Your task to perform on an android device: open app "Roku - Official Remote Control" Image 0: 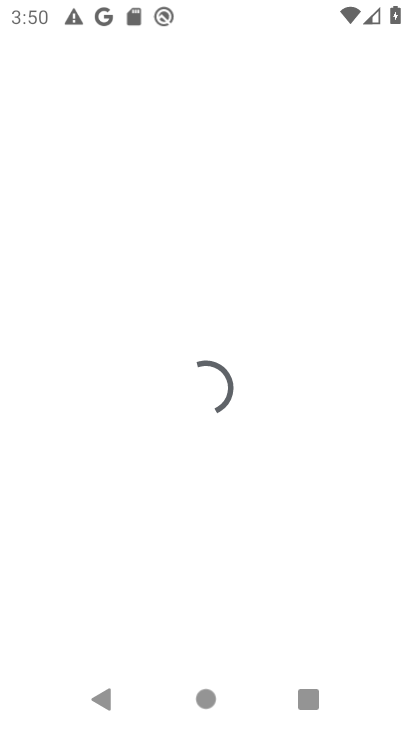
Step 0: press home button
Your task to perform on an android device: open app "Roku - Official Remote Control" Image 1: 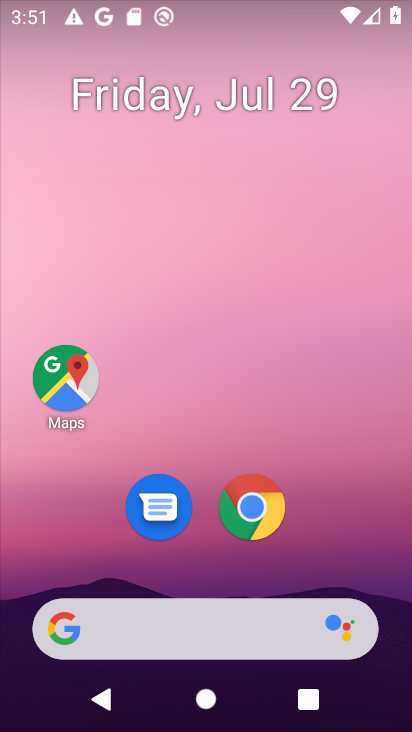
Step 1: click (232, 637)
Your task to perform on an android device: open app "Roku - Official Remote Control" Image 2: 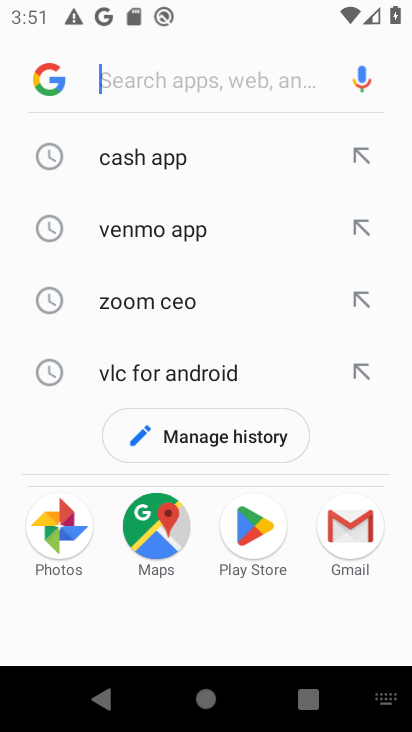
Step 2: type "roku"
Your task to perform on an android device: open app "Roku - Official Remote Control" Image 3: 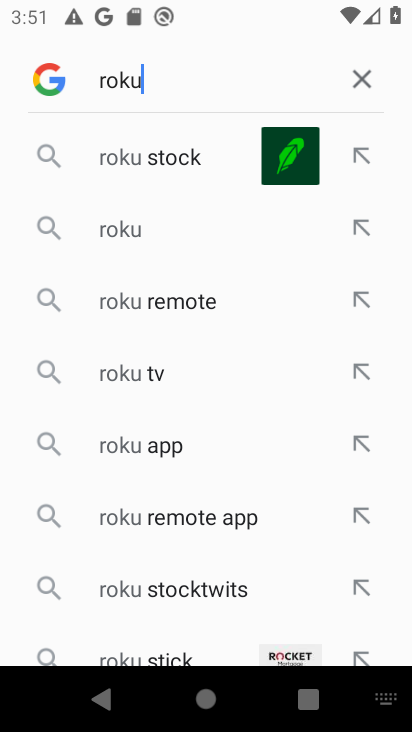
Step 3: click (167, 186)
Your task to perform on an android device: open app "Roku - Official Remote Control" Image 4: 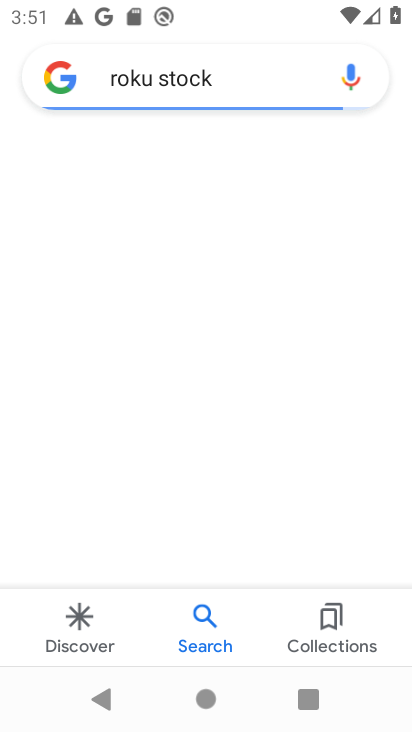
Step 4: task complete